Your task to perform on an android device: Open the stopwatch Image 0: 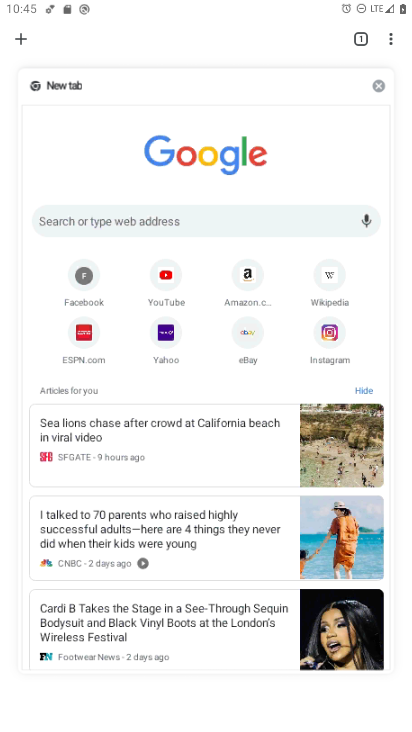
Step 0: press home button
Your task to perform on an android device: Open the stopwatch Image 1: 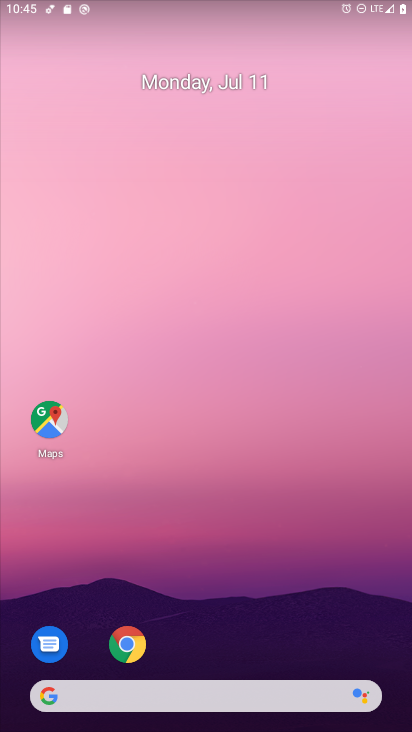
Step 1: drag from (227, 673) to (220, 161)
Your task to perform on an android device: Open the stopwatch Image 2: 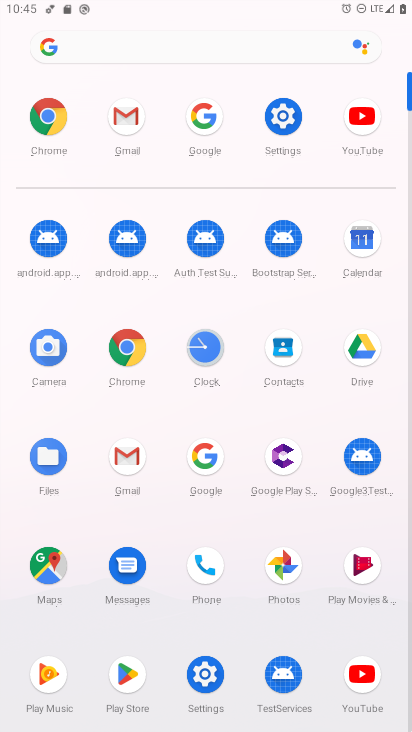
Step 2: click (190, 346)
Your task to perform on an android device: Open the stopwatch Image 3: 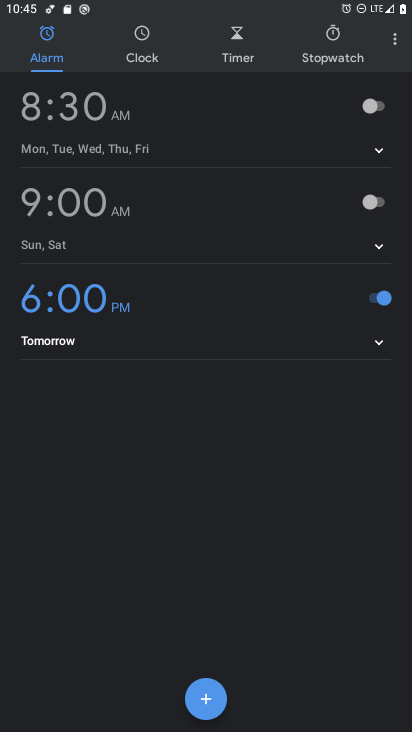
Step 3: click (325, 59)
Your task to perform on an android device: Open the stopwatch Image 4: 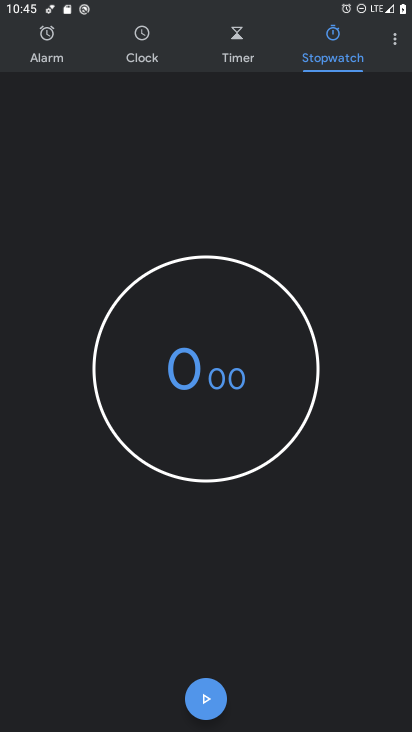
Step 4: click (204, 710)
Your task to perform on an android device: Open the stopwatch Image 5: 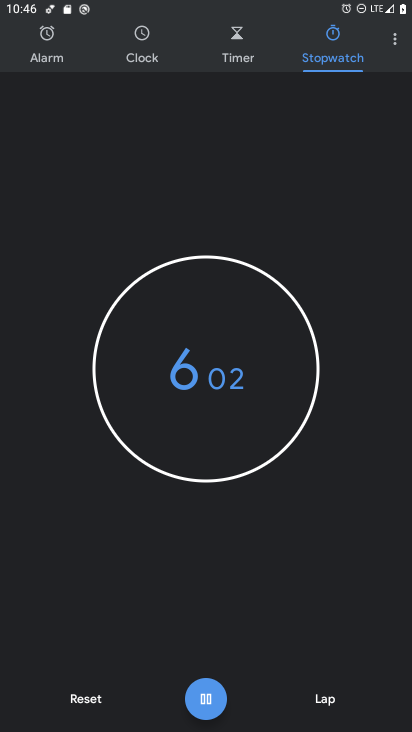
Step 5: click (204, 710)
Your task to perform on an android device: Open the stopwatch Image 6: 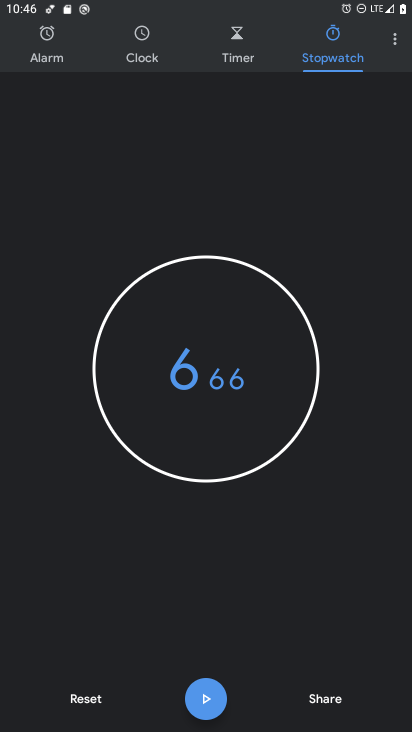
Step 6: task complete